Your task to perform on an android device: Go to Wikipedia Image 0: 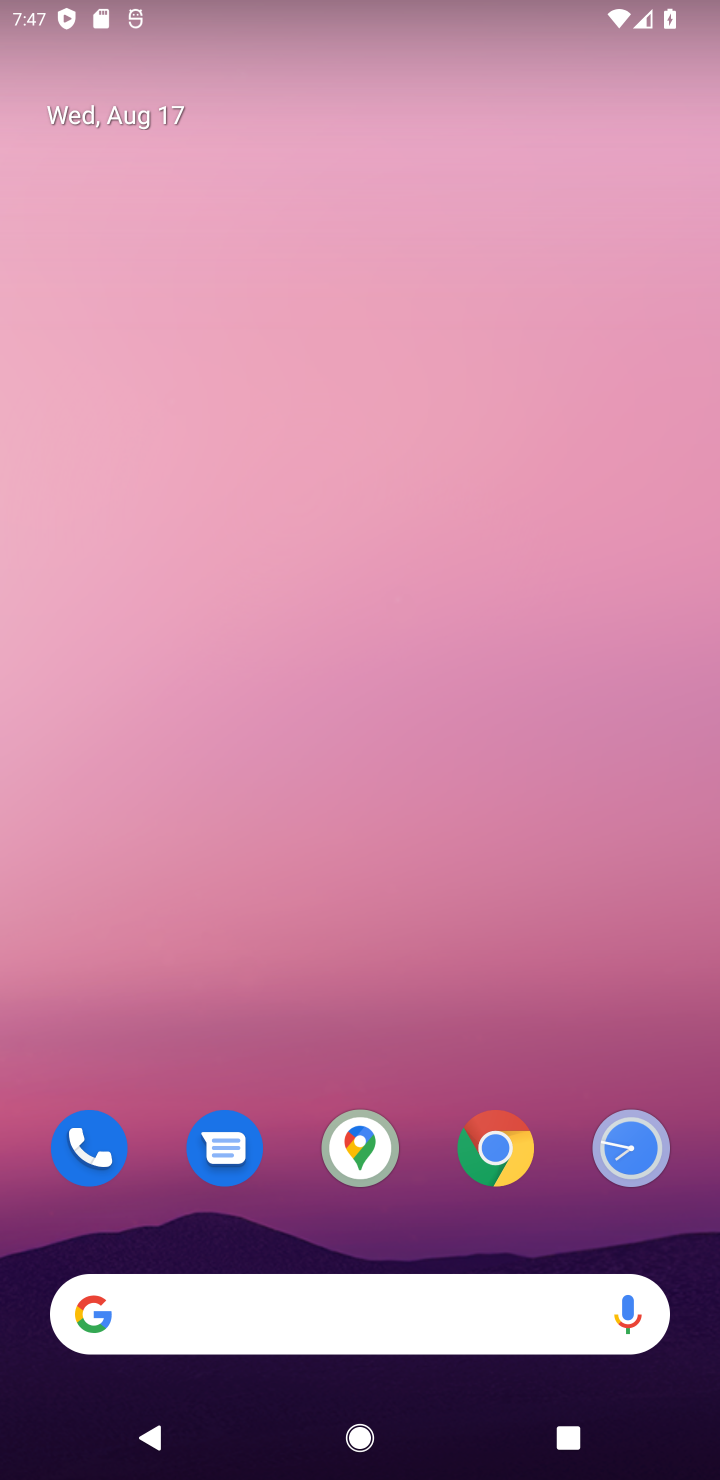
Step 0: click (490, 1151)
Your task to perform on an android device: Go to Wikipedia Image 1: 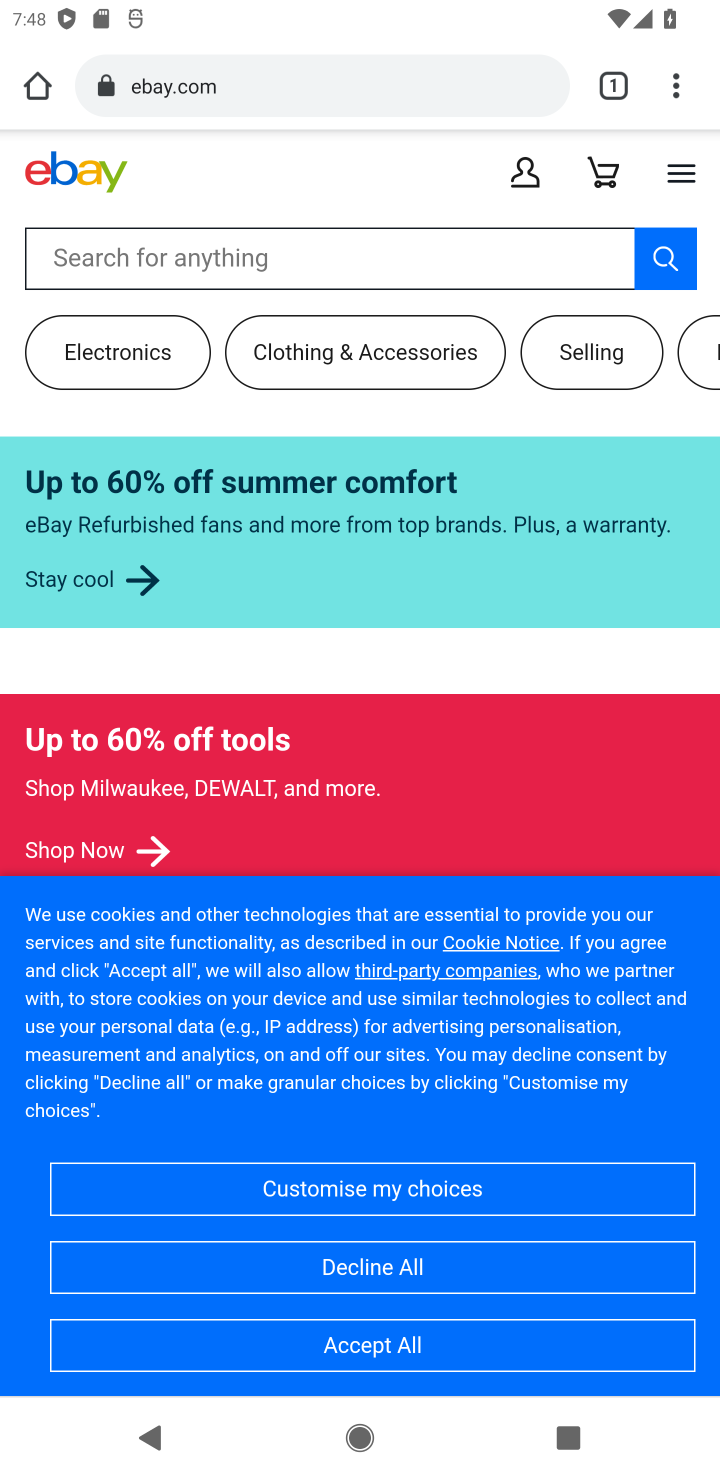
Step 1: click (622, 73)
Your task to perform on an android device: Go to Wikipedia Image 2: 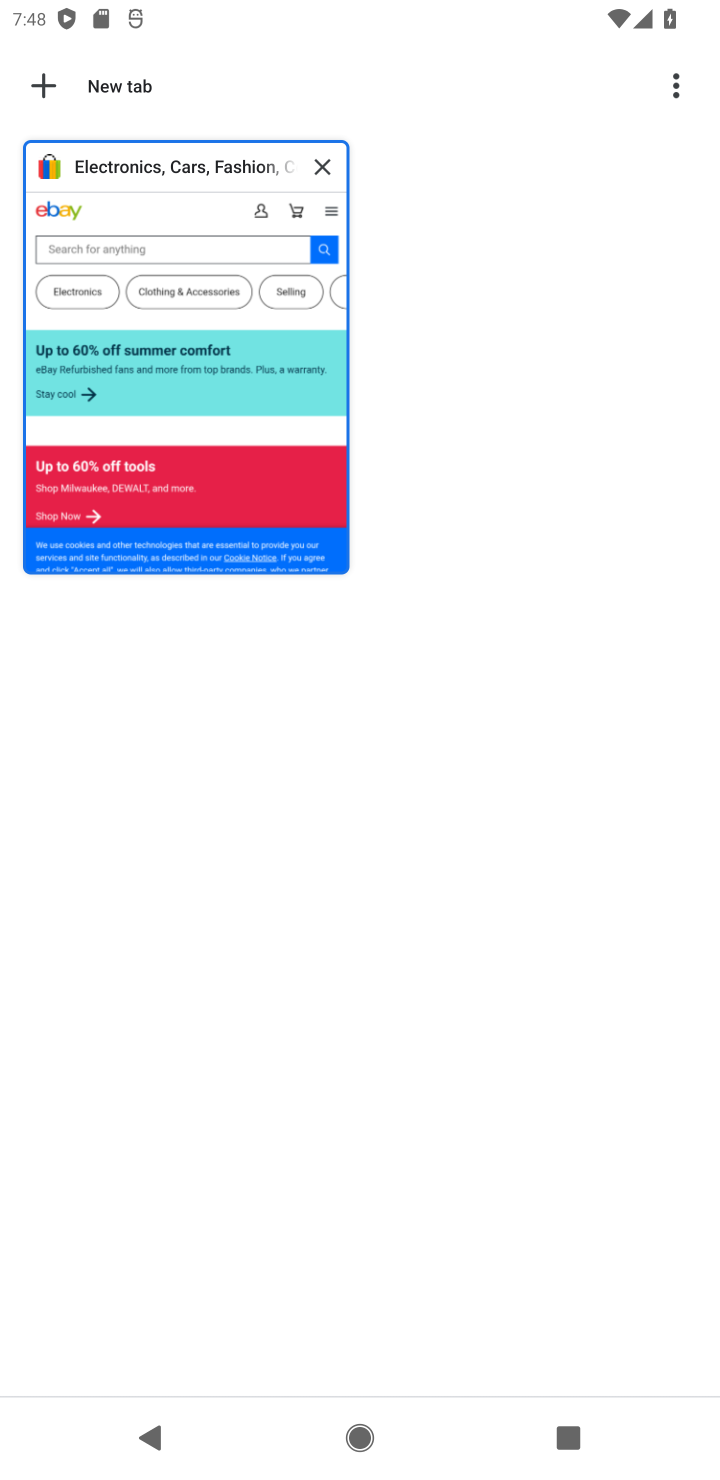
Step 2: click (37, 83)
Your task to perform on an android device: Go to Wikipedia Image 3: 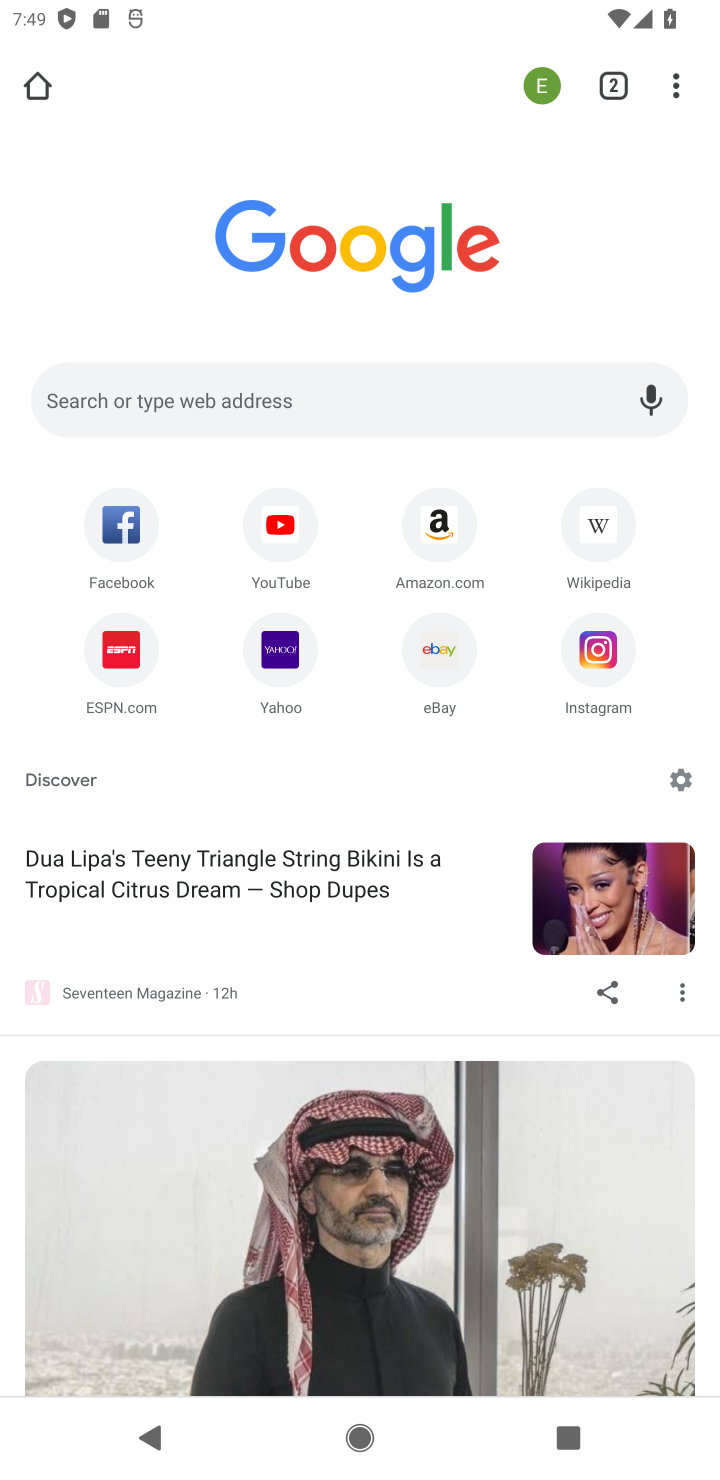
Step 3: click (602, 528)
Your task to perform on an android device: Go to Wikipedia Image 4: 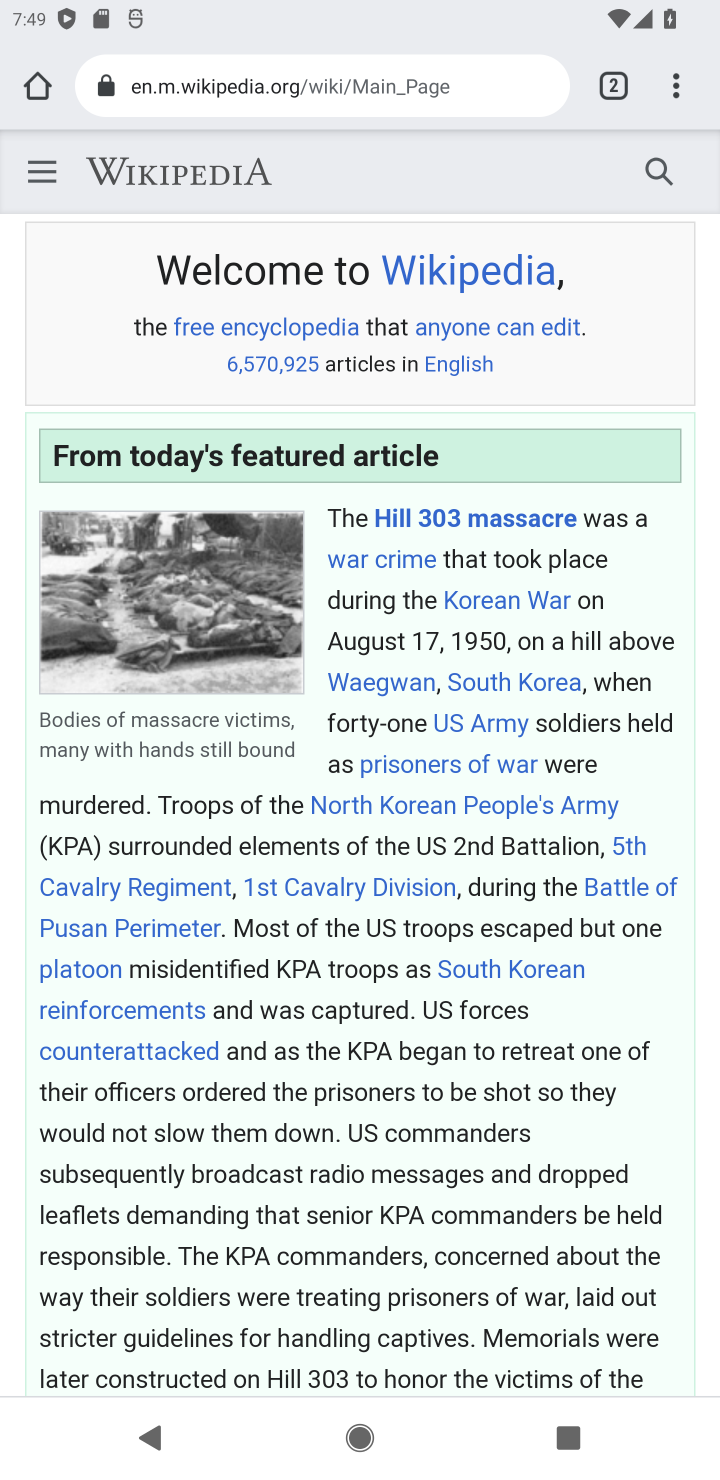
Step 4: task complete